Your task to perform on an android device: Open accessibility settings Image 0: 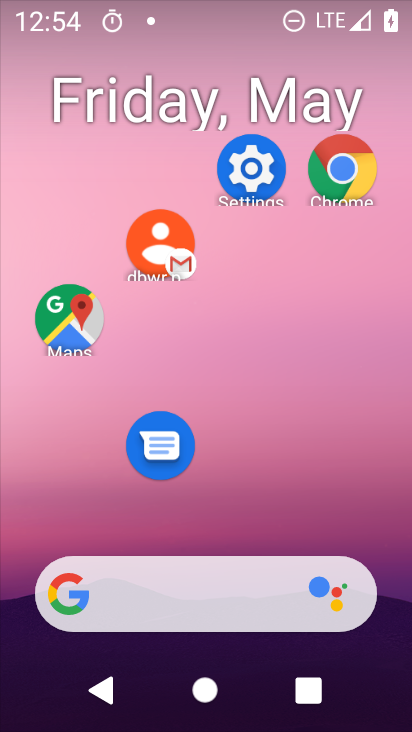
Step 0: click (295, 10)
Your task to perform on an android device: Open accessibility settings Image 1: 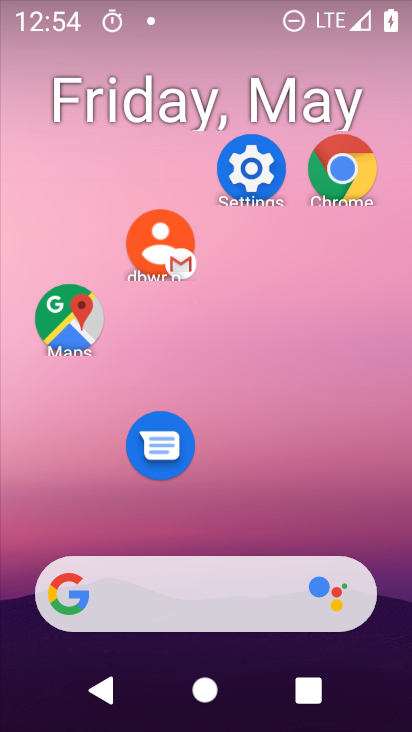
Step 1: drag from (212, 524) to (231, 27)
Your task to perform on an android device: Open accessibility settings Image 2: 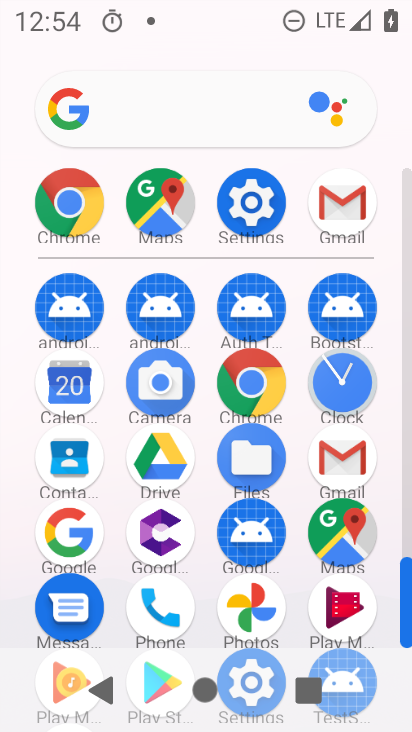
Step 2: click (245, 190)
Your task to perform on an android device: Open accessibility settings Image 3: 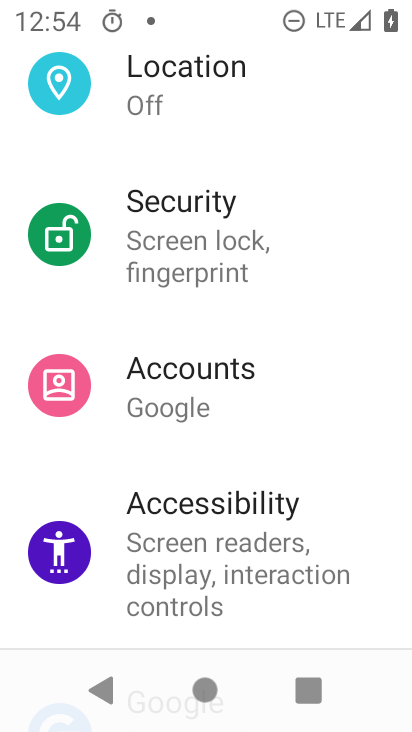
Step 3: drag from (187, 476) to (209, 121)
Your task to perform on an android device: Open accessibility settings Image 4: 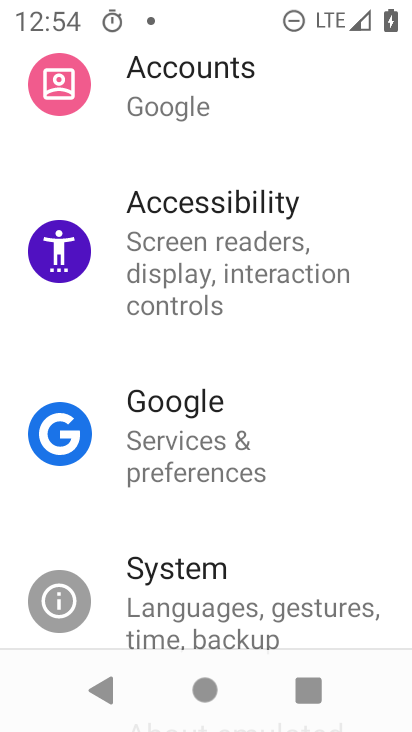
Step 4: click (192, 229)
Your task to perform on an android device: Open accessibility settings Image 5: 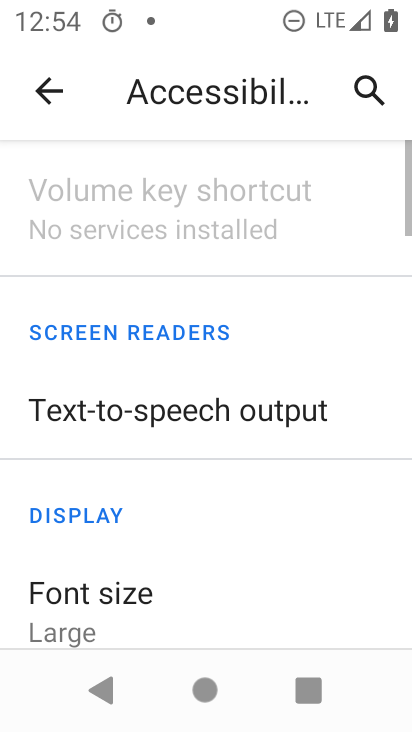
Step 5: task complete